Your task to perform on an android device: Open the calendar and show me this week's events? Image 0: 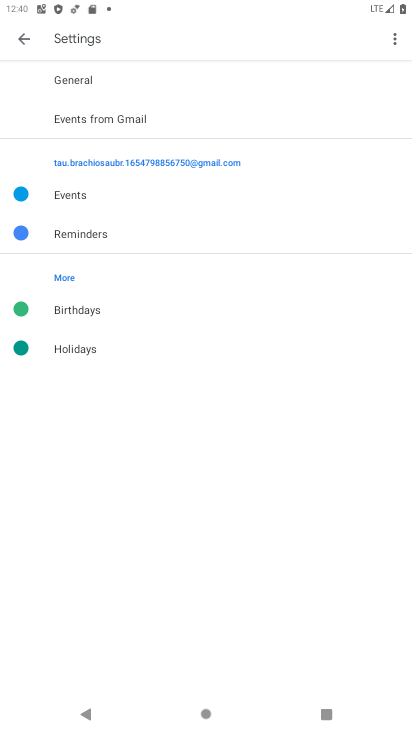
Step 0: press home button
Your task to perform on an android device: Open the calendar and show me this week's events? Image 1: 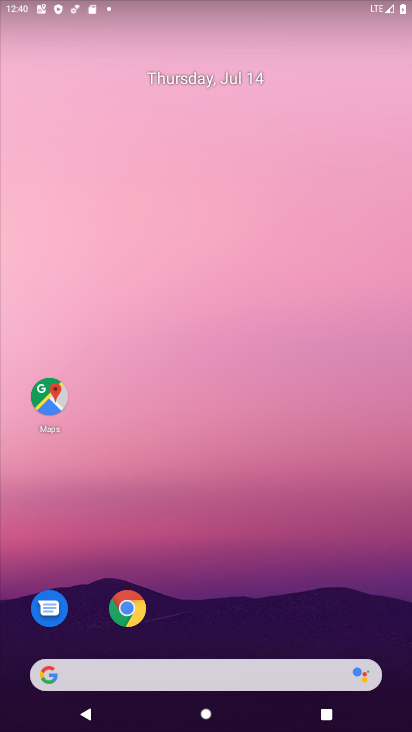
Step 1: drag from (59, 502) to (288, 22)
Your task to perform on an android device: Open the calendar and show me this week's events? Image 2: 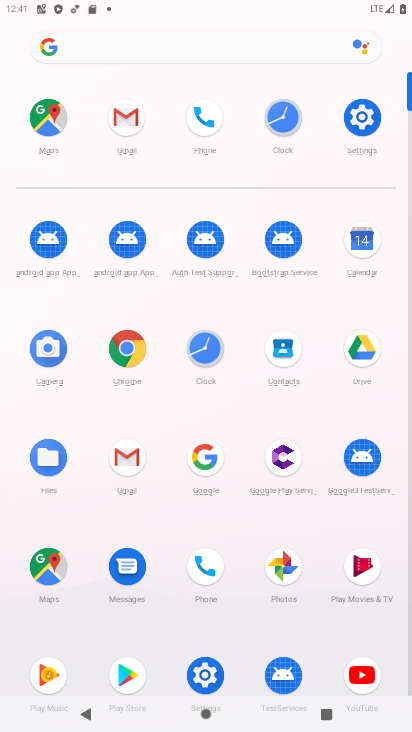
Step 2: click (353, 245)
Your task to perform on an android device: Open the calendar and show me this week's events? Image 3: 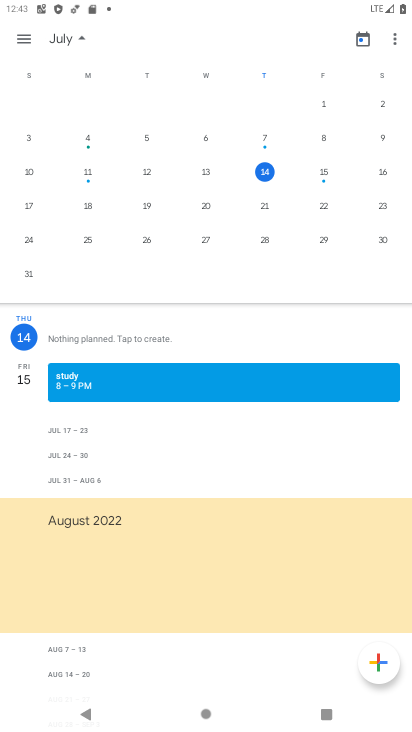
Step 3: task complete